Your task to perform on an android device: Open Amazon Image 0: 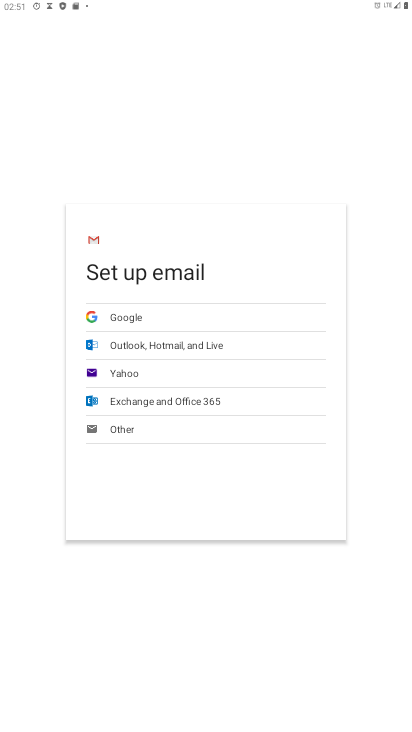
Step 0: press home button
Your task to perform on an android device: Open Amazon Image 1: 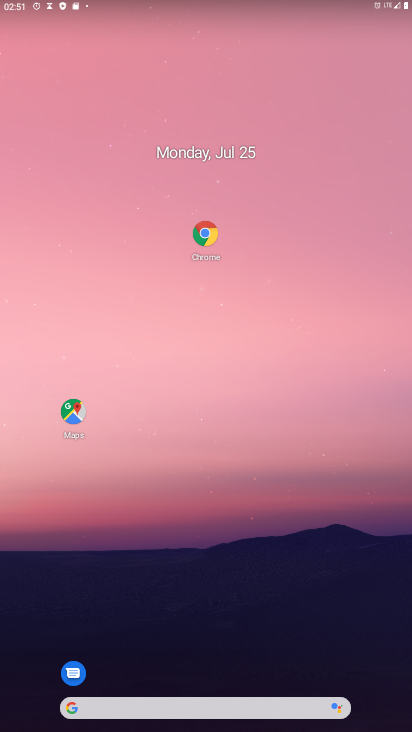
Step 1: drag from (327, 621) to (409, 337)
Your task to perform on an android device: Open Amazon Image 2: 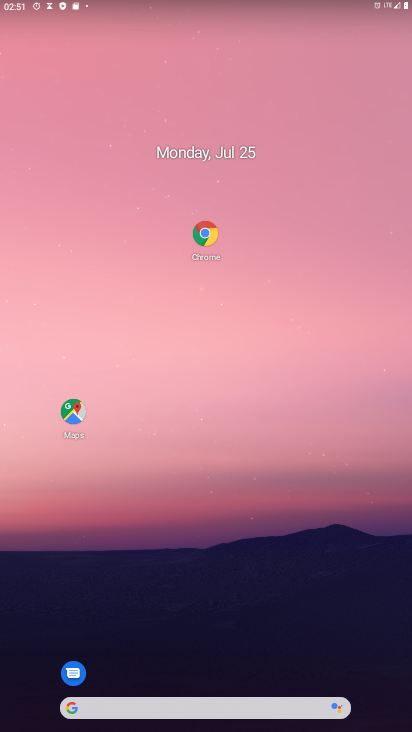
Step 2: drag from (208, 690) to (265, 31)
Your task to perform on an android device: Open Amazon Image 3: 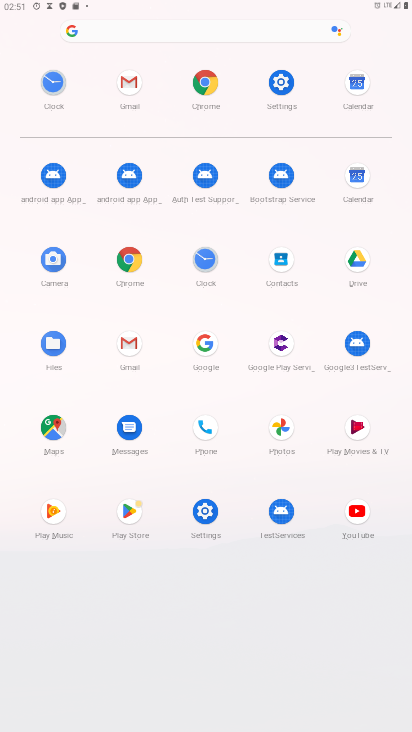
Step 3: click (135, 255)
Your task to perform on an android device: Open Amazon Image 4: 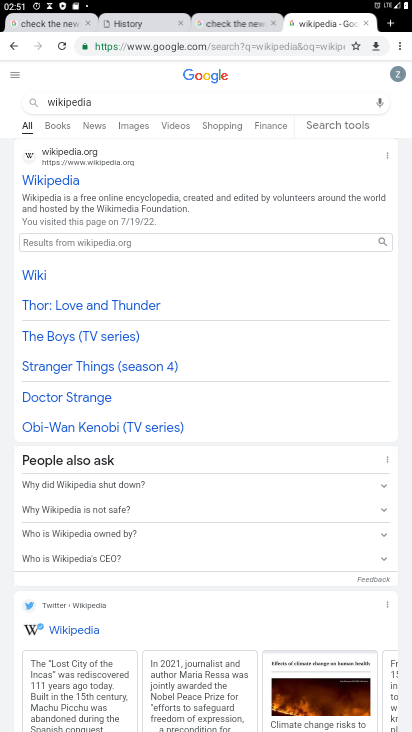
Step 4: drag from (400, 52) to (334, 44)
Your task to perform on an android device: Open Amazon Image 5: 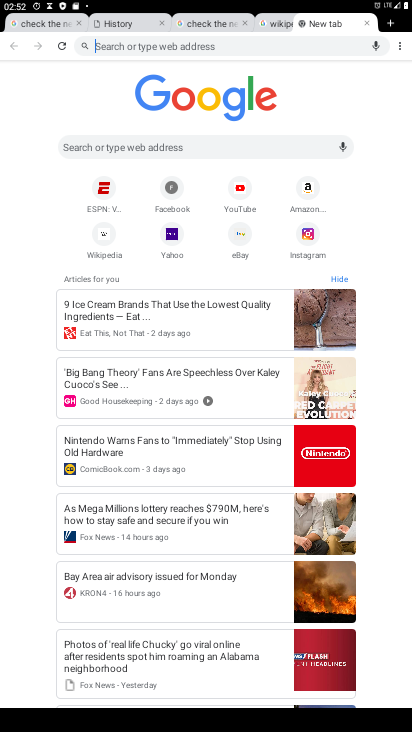
Step 5: type "amazom"
Your task to perform on an android device: Open Amazon Image 6: 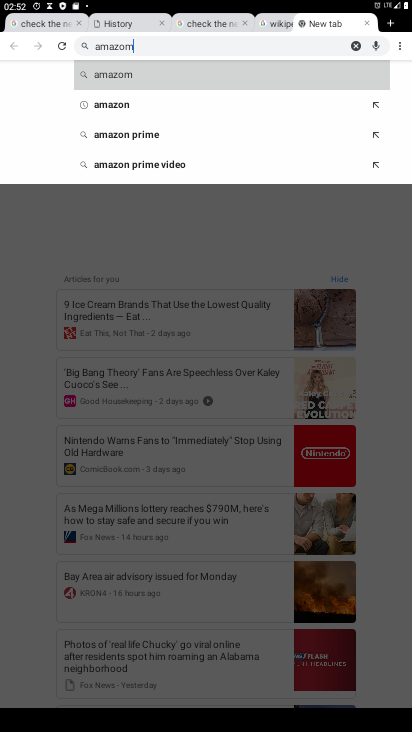
Step 6: click (119, 105)
Your task to perform on an android device: Open Amazon Image 7: 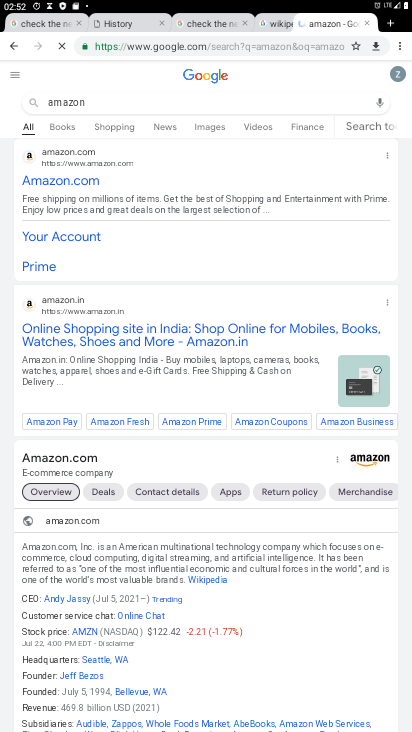
Step 7: task complete